Your task to perform on an android device: create a new album in the google photos Image 0: 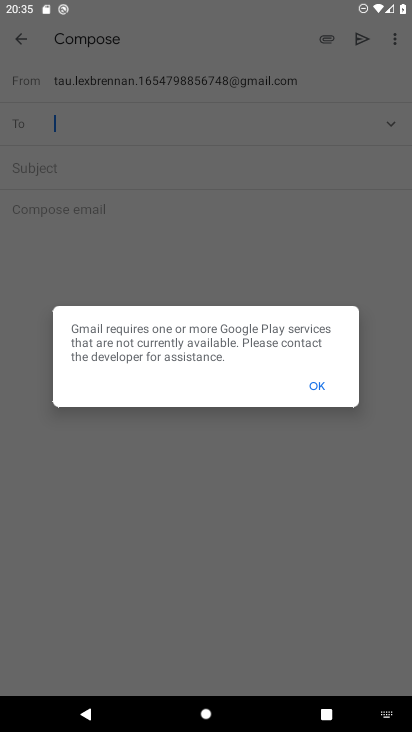
Step 0: press home button
Your task to perform on an android device: create a new album in the google photos Image 1: 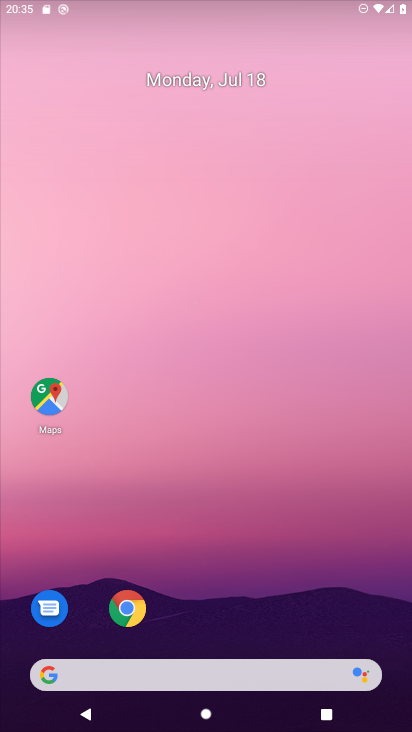
Step 1: drag from (210, 616) to (231, 140)
Your task to perform on an android device: create a new album in the google photos Image 2: 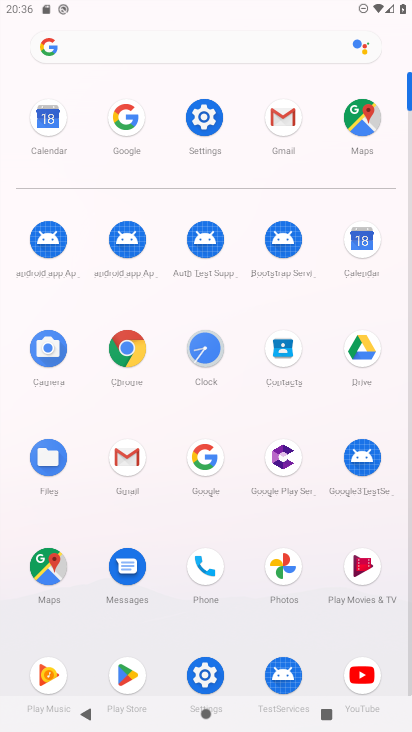
Step 2: click (283, 574)
Your task to perform on an android device: create a new album in the google photos Image 3: 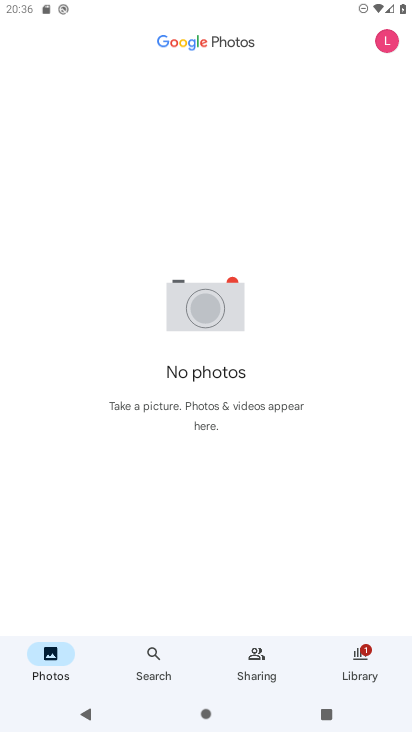
Step 3: click (358, 669)
Your task to perform on an android device: create a new album in the google photos Image 4: 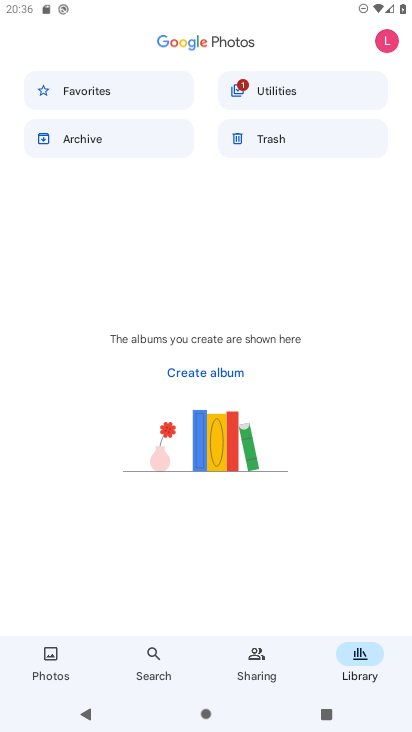
Step 4: click (205, 376)
Your task to perform on an android device: create a new album in the google photos Image 5: 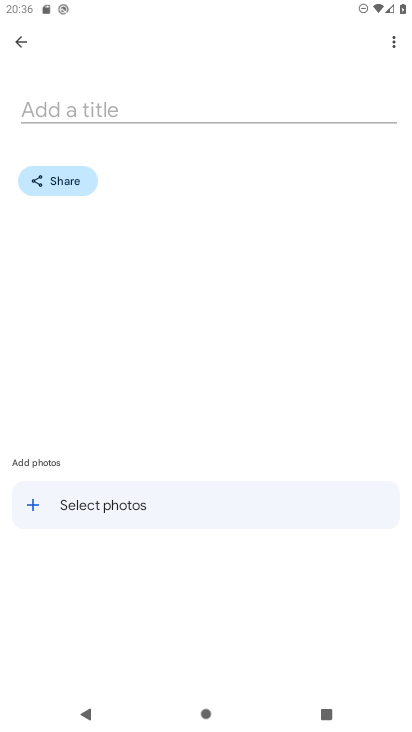
Step 5: click (30, 502)
Your task to perform on an android device: create a new album in the google photos Image 6: 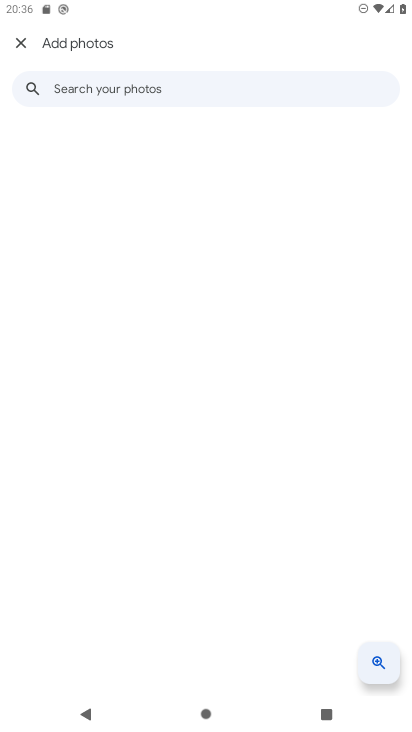
Step 6: task complete